Your task to perform on an android device: Go to notification settings Image 0: 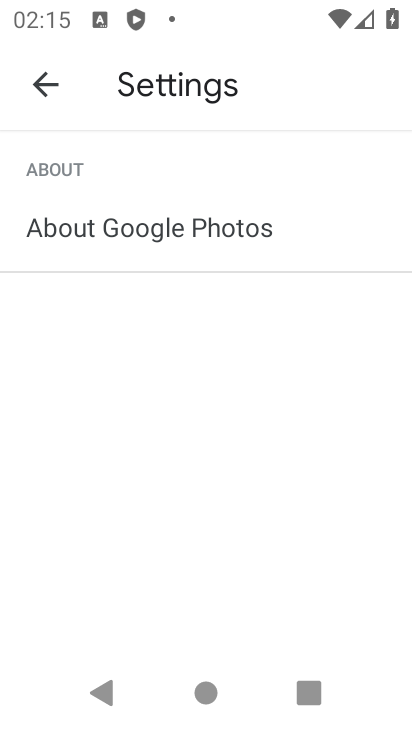
Step 0: press home button
Your task to perform on an android device: Go to notification settings Image 1: 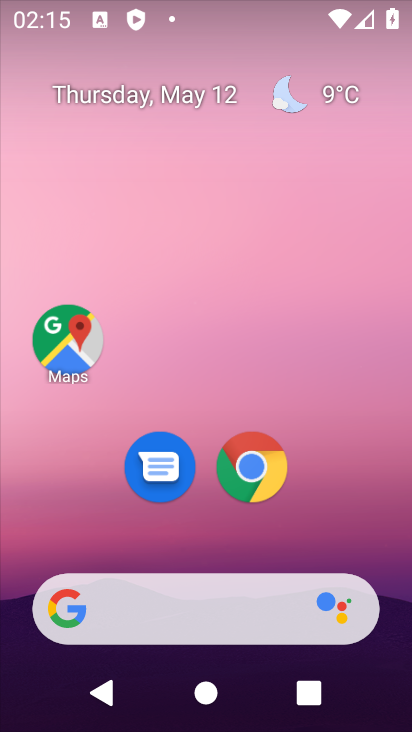
Step 1: drag from (329, 525) to (345, 247)
Your task to perform on an android device: Go to notification settings Image 2: 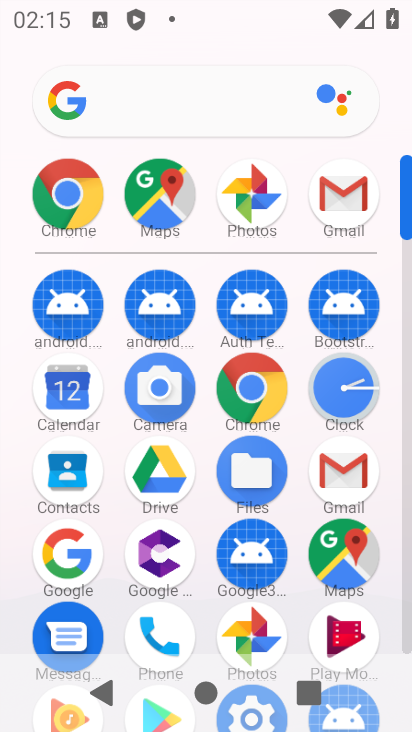
Step 2: drag from (311, 578) to (333, 295)
Your task to perform on an android device: Go to notification settings Image 3: 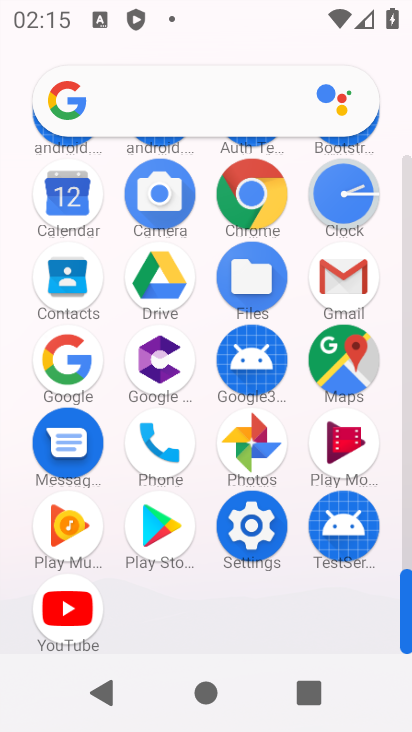
Step 3: click (248, 506)
Your task to perform on an android device: Go to notification settings Image 4: 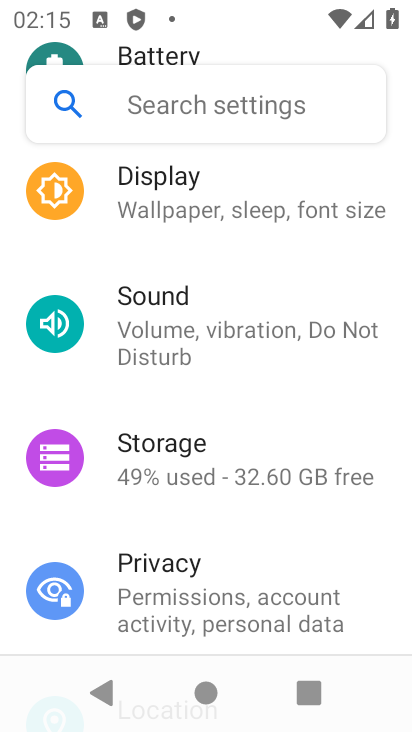
Step 4: drag from (257, 220) to (237, 613)
Your task to perform on an android device: Go to notification settings Image 5: 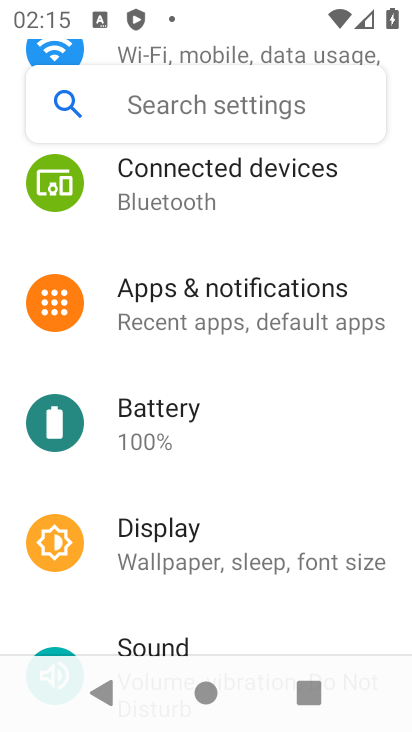
Step 5: click (193, 292)
Your task to perform on an android device: Go to notification settings Image 6: 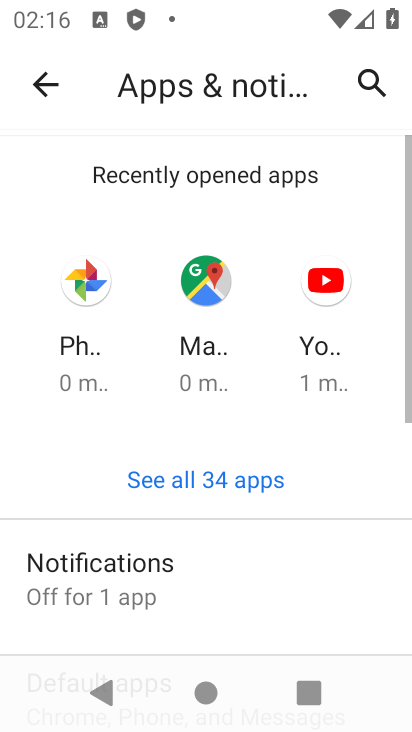
Step 6: click (155, 563)
Your task to perform on an android device: Go to notification settings Image 7: 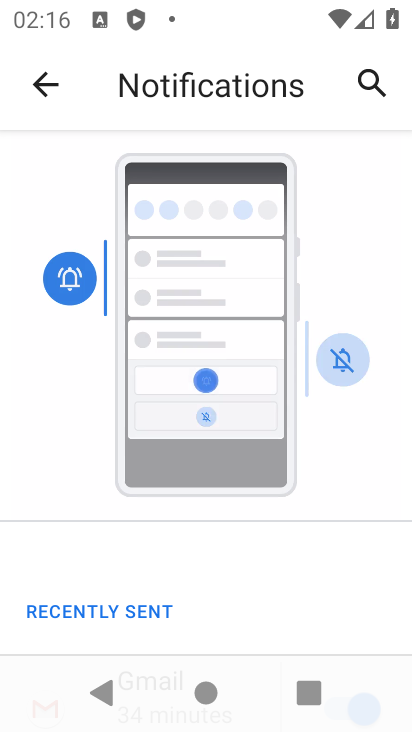
Step 7: task complete